Your task to perform on an android device: Toggle the flashlight Image 0: 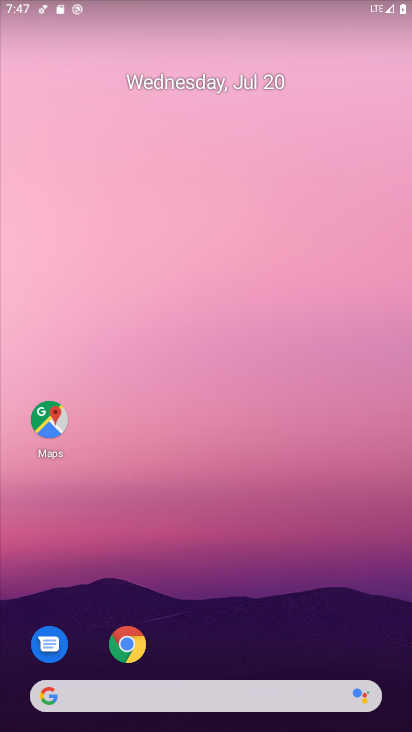
Step 0: drag from (166, 9) to (195, 396)
Your task to perform on an android device: Toggle the flashlight Image 1: 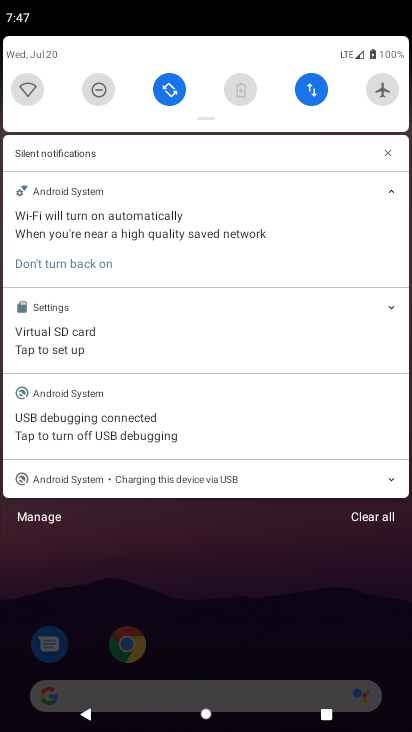
Step 1: drag from (236, 81) to (241, 534)
Your task to perform on an android device: Toggle the flashlight Image 2: 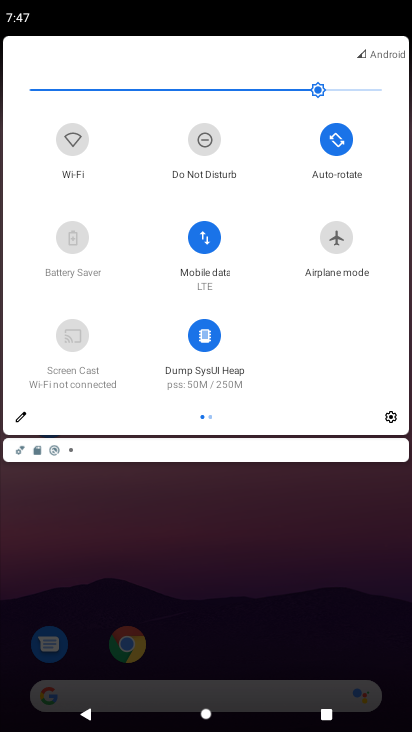
Step 2: drag from (354, 304) to (3, 403)
Your task to perform on an android device: Toggle the flashlight Image 3: 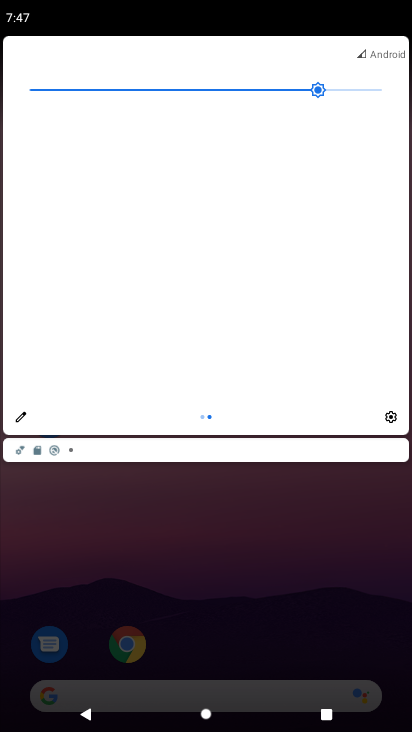
Step 3: click (22, 415)
Your task to perform on an android device: Toggle the flashlight Image 4: 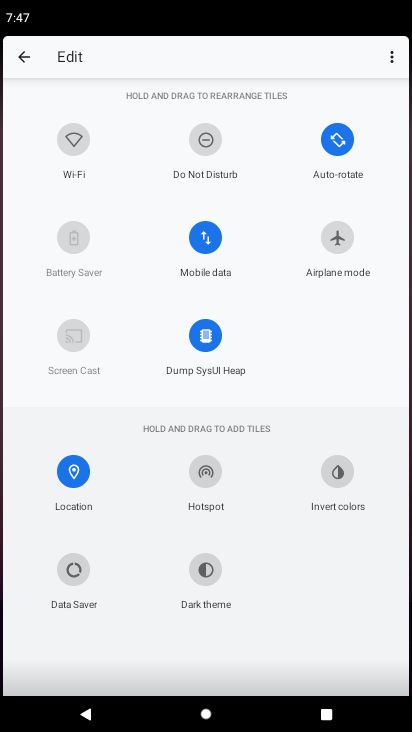
Step 4: task complete